Your task to perform on an android device: What's the weather today? Image 0: 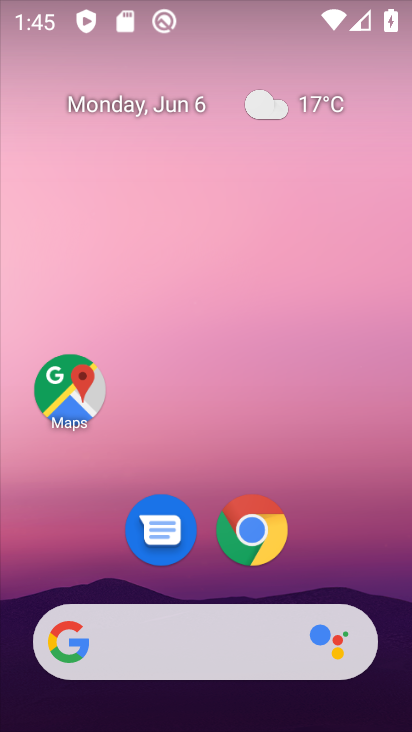
Step 0: click (220, 521)
Your task to perform on an android device: What's the weather today? Image 1: 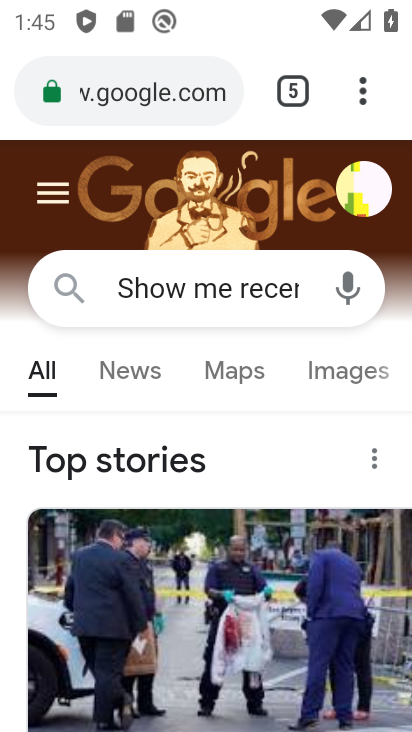
Step 1: click (376, 87)
Your task to perform on an android device: What's the weather today? Image 2: 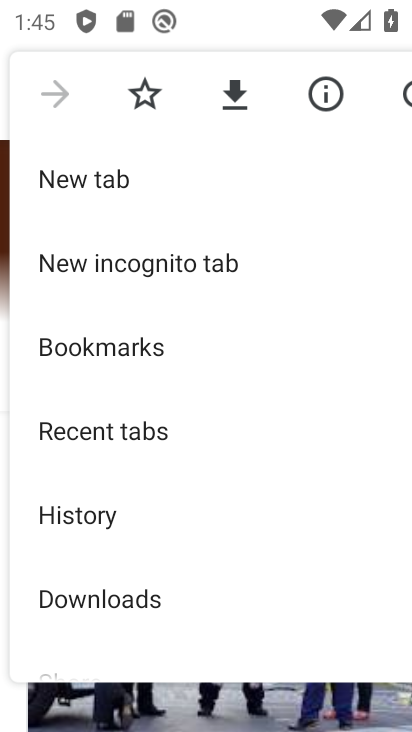
Step 2: click (113, 169)
Your task to perform on an android device: What's the weather today? Image 3: 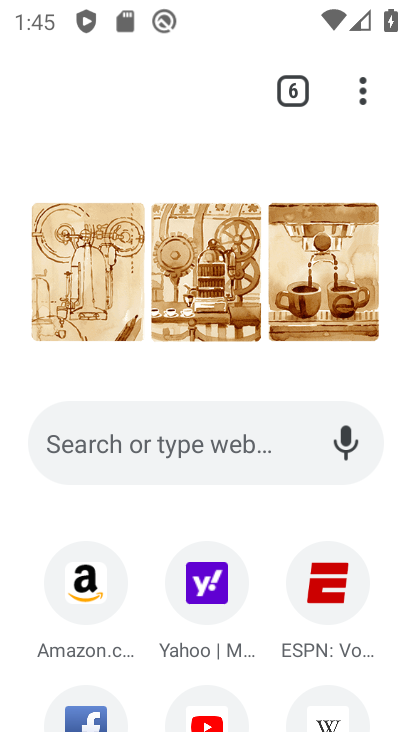
Step 3: click (206, 424)
Your task to perform on an android device: What's the weather today? Image 4: 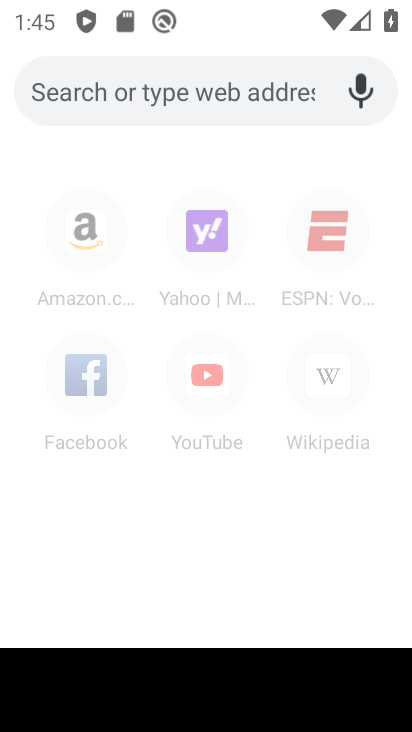
Step 4: type "What's the weather today?"
Your task to perform on an android device: What's the weather today? Image 5: 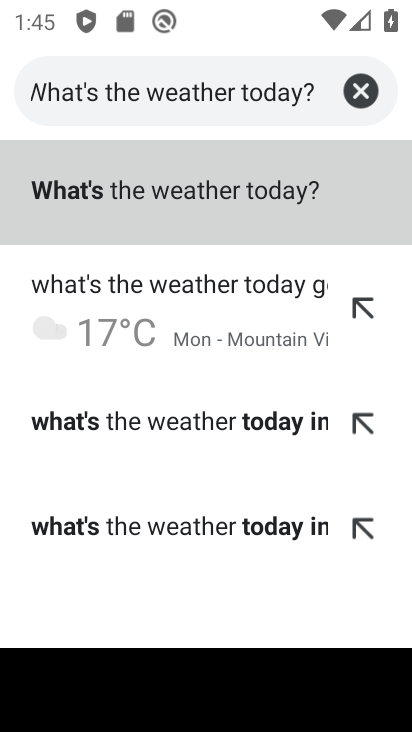
Step 5: click (227, 173)
Your task to perform on an android device: What's the weather today? Image 6: 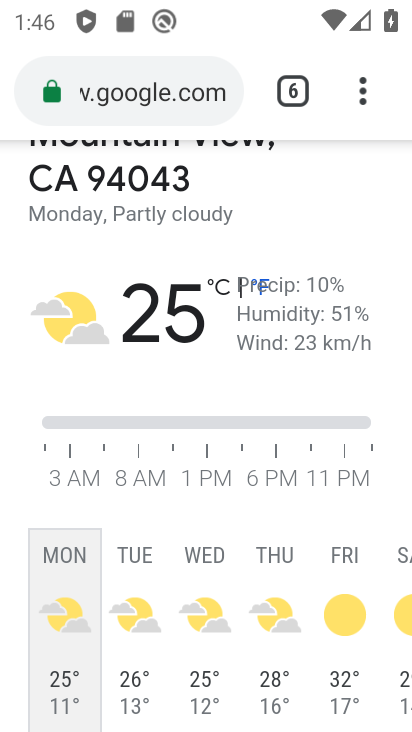
Step 6: task complete